Your task to perform on an android device: turn pop-ups off in chrome Image 0: 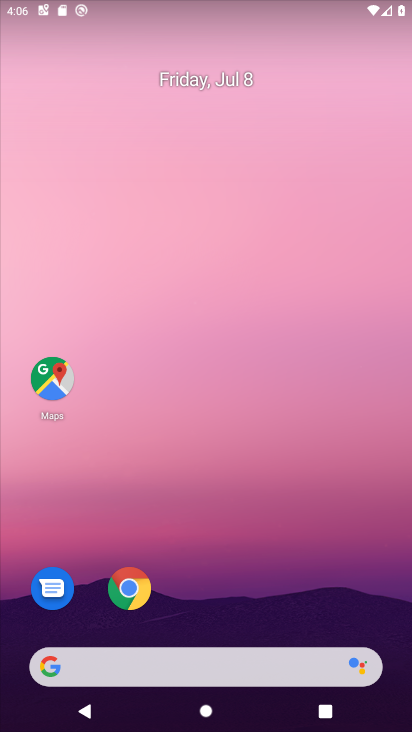
Step 0: drag from (252, 579) to (274, 20)
Your task to perform on an android device: turn pop-ups off in chrome Image 1: 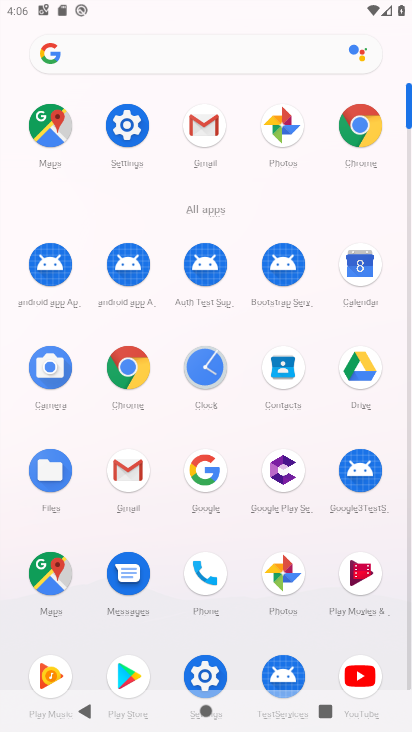
Step 1: click (129, 365)
Your task to perform on an android device: turn pop-ups off in chrome Image 2: 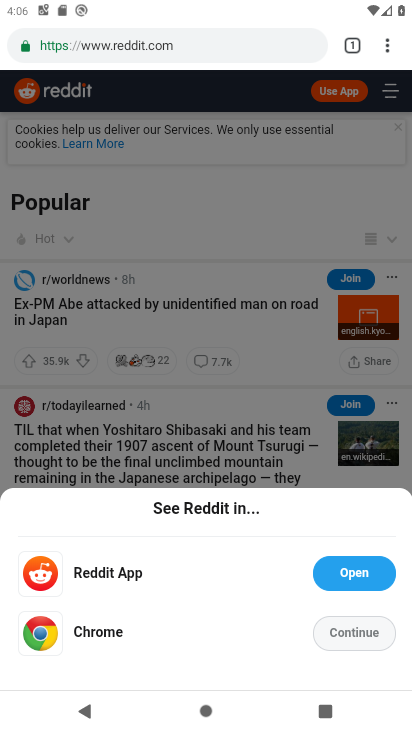
Step 2: click (385, 42)
Your task to perform on an android device: turn pop-ups off in chrome Image 3: 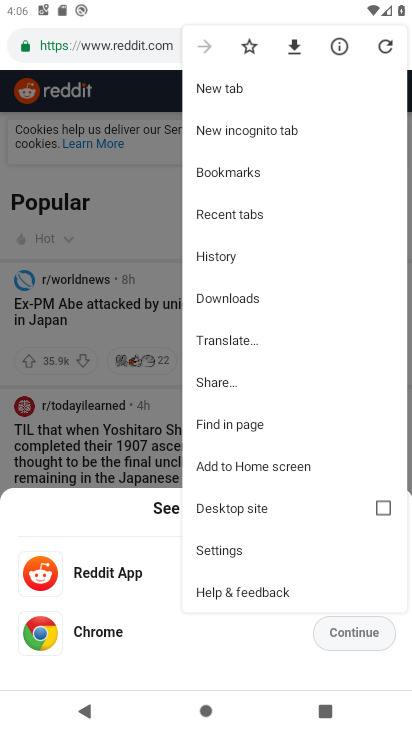
Step 3: click (237, 549)
Your task to perform on an android device: turn pop-ups off in chrome Image 4: 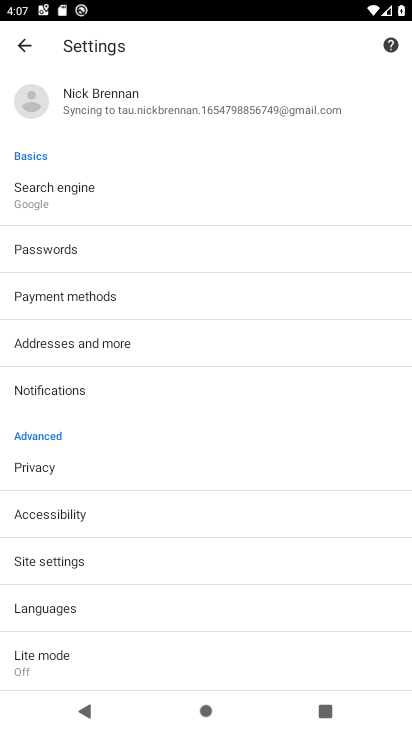
Step 4: click (73, 563)
Your task to perform on an android device: turn pop-ups off in chrome Image 5: 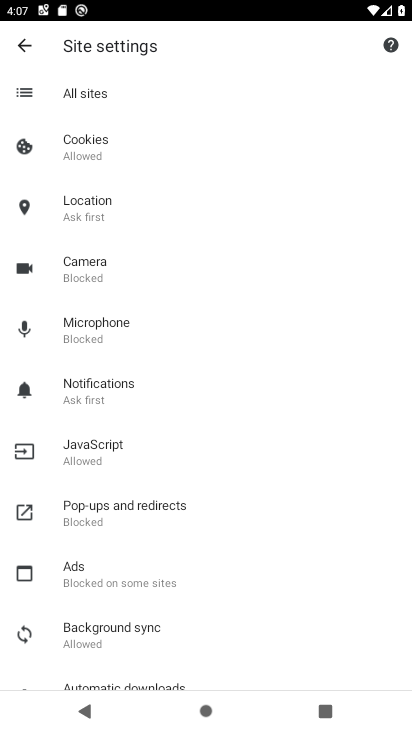
Step 5: click (127, 515)
Your task to perform on an android device: turn pop-ups off in chrome Image 6: 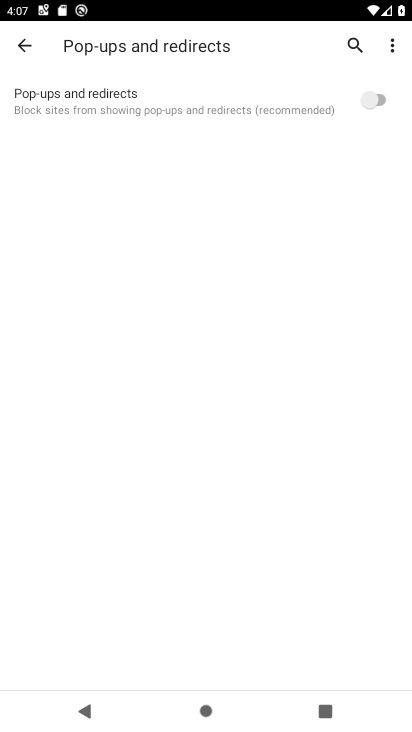
Step 6: task complete